Your task to perform on an android device: turn on priority inbox in the gmail app Image 0: 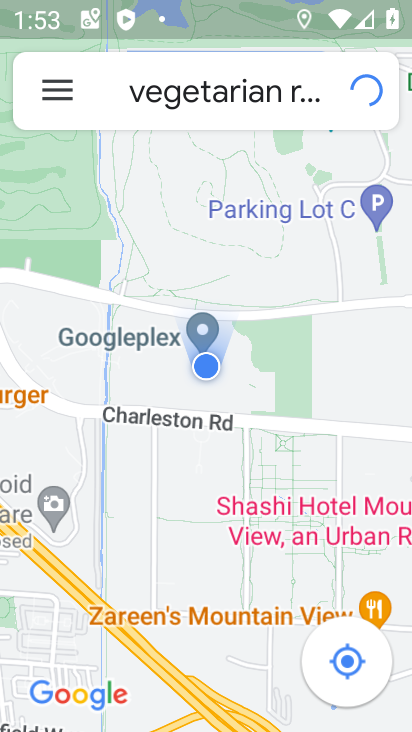
Step 0: press home button
Your task to perform on an android device: turn on priority inbox in the gmail app Image 1: 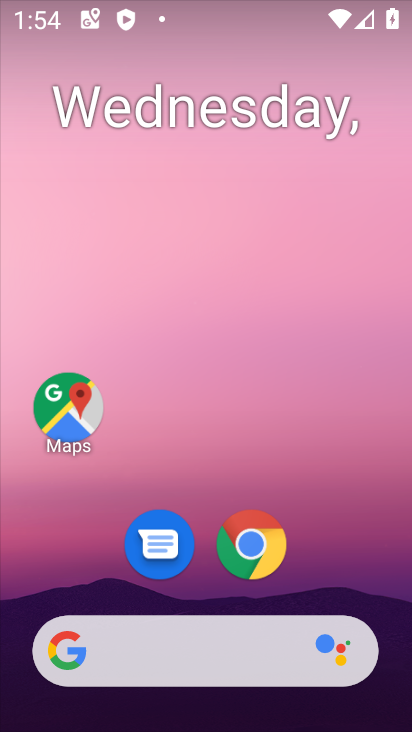
Step 1: drag from (336, 570) to (341, 229)
Your task to perform on an android device: turn on priority inbox in the gmail app Image 2: 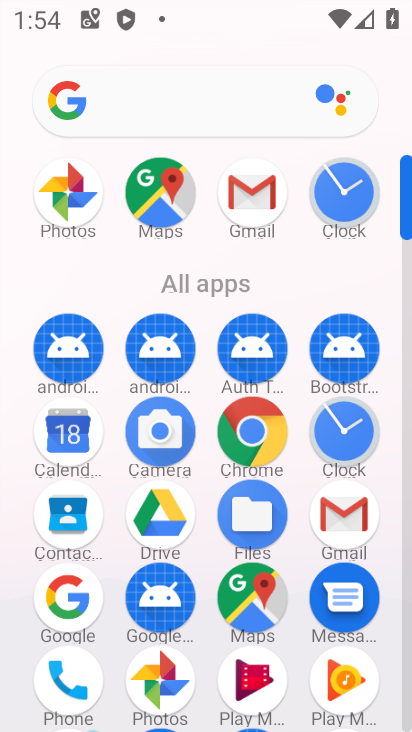
Step 2: click (274, 219)
Your task to perform on an android device: turn on priority inbox in the gmail app Image 3: 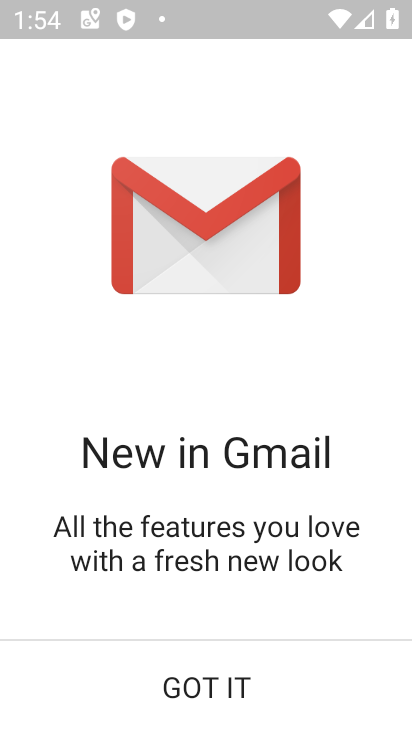
Step 3: click (150, 686)
Your task to perform on an android device: turn on priority inbox in the gmail app Image 4: 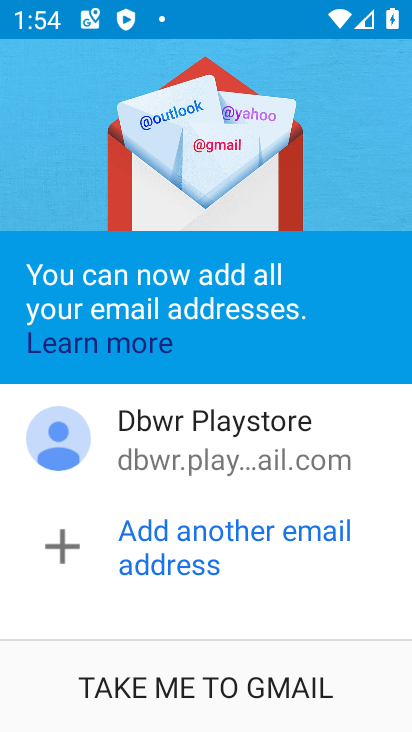
Step 4: click (150, 686)
Your task to perform on an android device: turn on priority inbox in the gmail app Image 5: 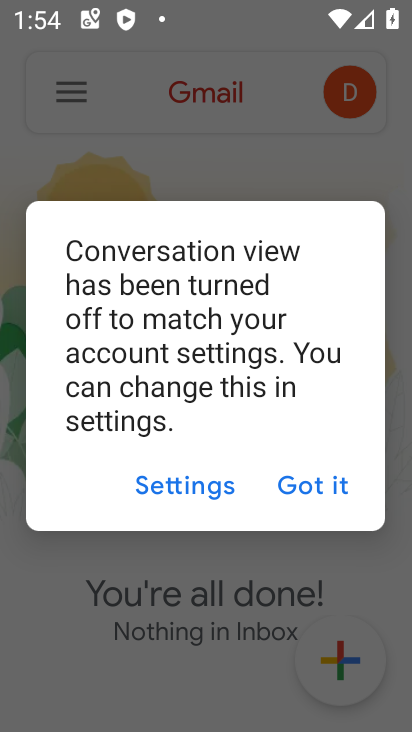
Step 5: click (335, 493)
Your task to perform on an android device: turn on priority inbox in the gmail app Image 6: 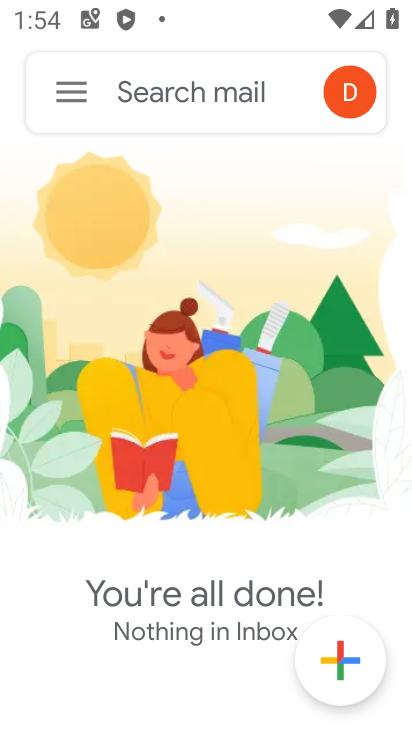
Step 6: click (80, 94)
Your task to perform on an android device: turn on priority inbox in the gmail app Image 7: 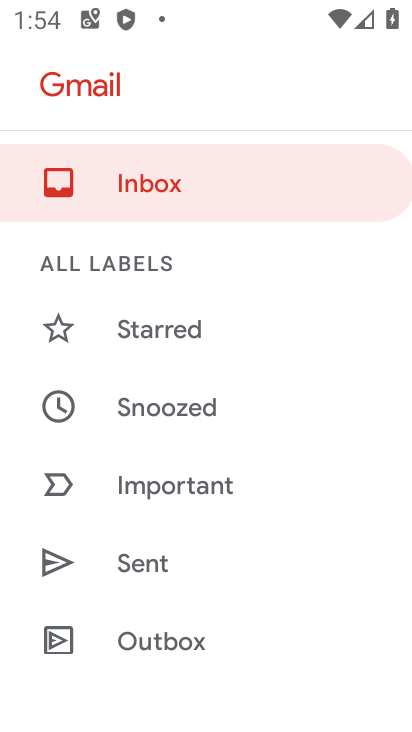
Step 7: drag from (108, 602) to (175, 335)
Your task to perform on an android device: turn on priority inbox in the gmail app Image 8: 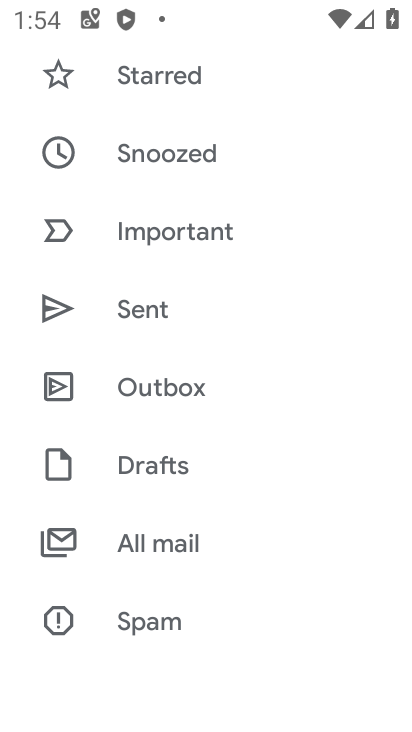
Step 8: drag from (150, 606) to (246, 275)
Your task to perform on an android device: turn on priority inbox in the gmail app Image 9: 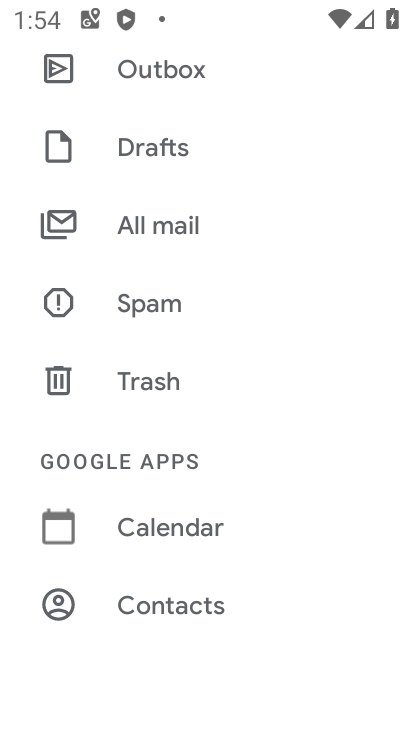
Step 9: drag from (200, 585) to (256, 421)
Your task to perform on an android device: turn on priority inbox in the gmail app Image 10: 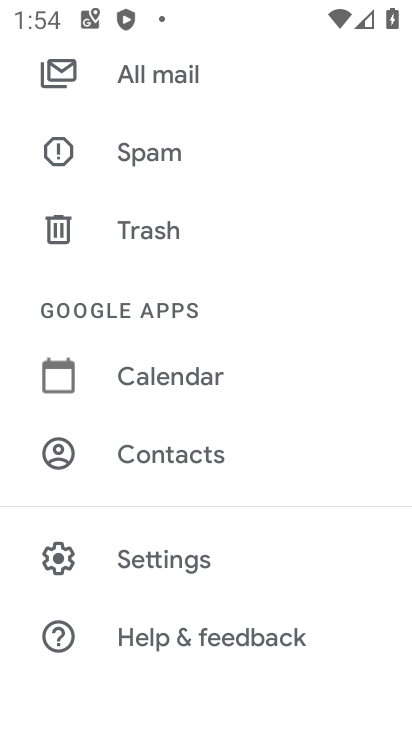
Step 10: click (201, 569)
Your task to perform on an android device: turn on priority inbox in the gmail app Image 11: 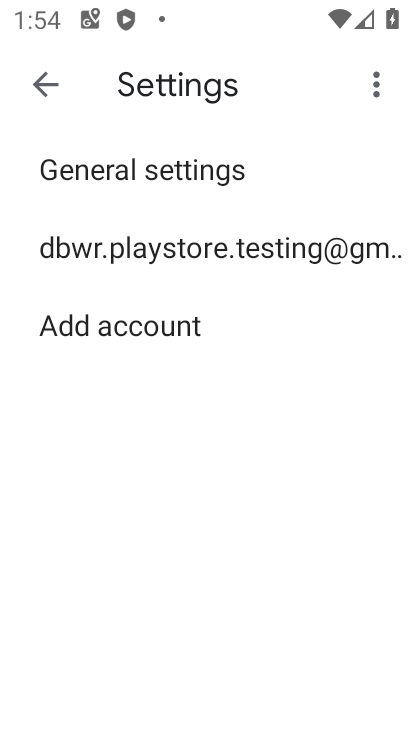
Step 11: click (224, 270)
Your task to perform on an android device: turn on priority inbox in the gmail app Image 12: 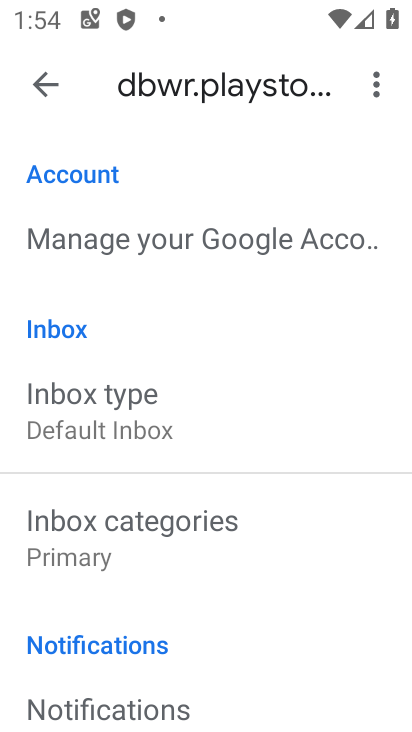
Step 12: click (187, 551)
Your task to perform on an android device: turn on priority inbox in the gmail app Image 13: 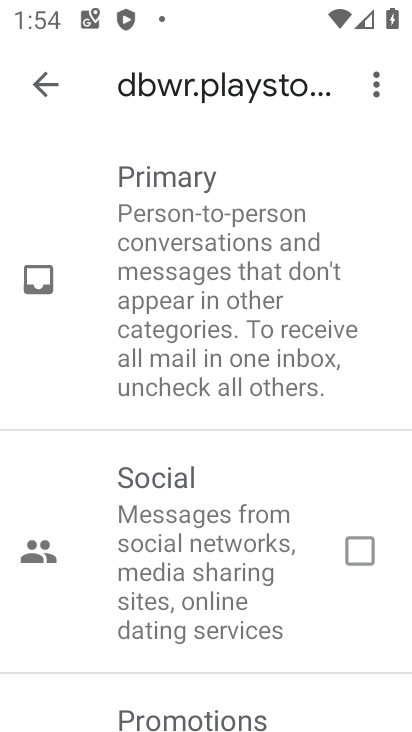
Step 13: task complete